Your task to perform on an android device: Play the last video I watched on Youtube Image 0: 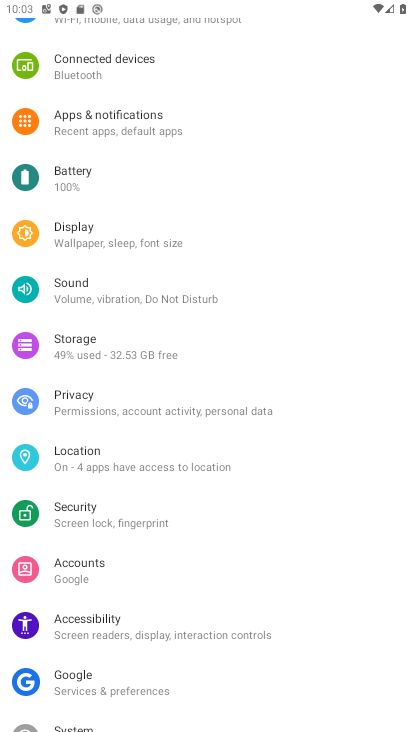
Step 0: press home button
Your task to perform on an android device: Play the last video I watched on Youtube Image 1: 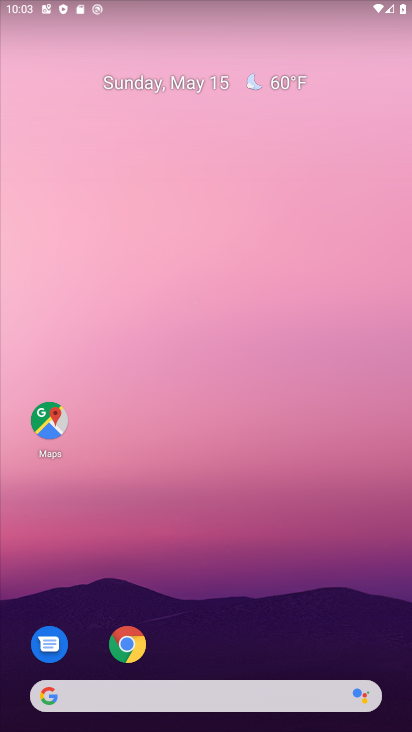
Step 1: drag from (198, 685) to (277, 226)
Your task to perform on an android device: Play the last video I watched on Youtube Image 2: 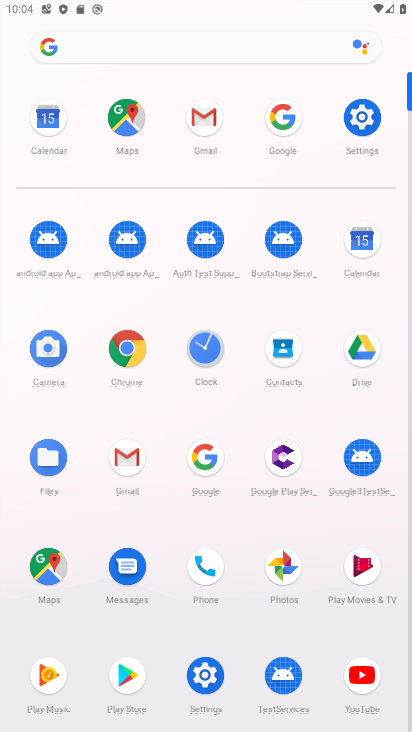
Step 2: click (354, 681)
Your task to perform on an android device: Play the last video I watched on Youtube Image 3: 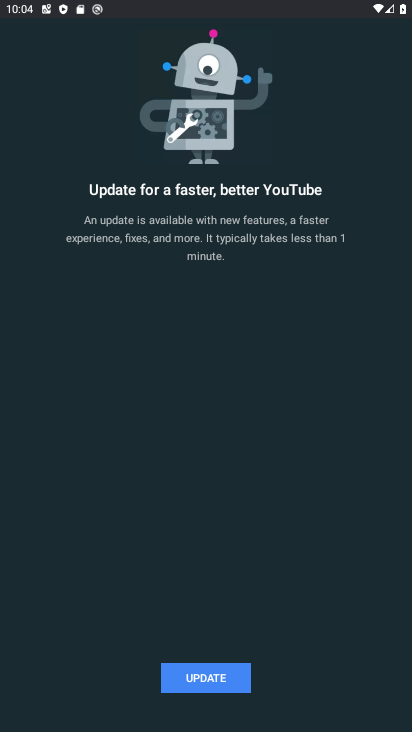
Step 3: click (213, 684)
Your task to perform on an android device: Play the last video I watched on Youtube Image 4: 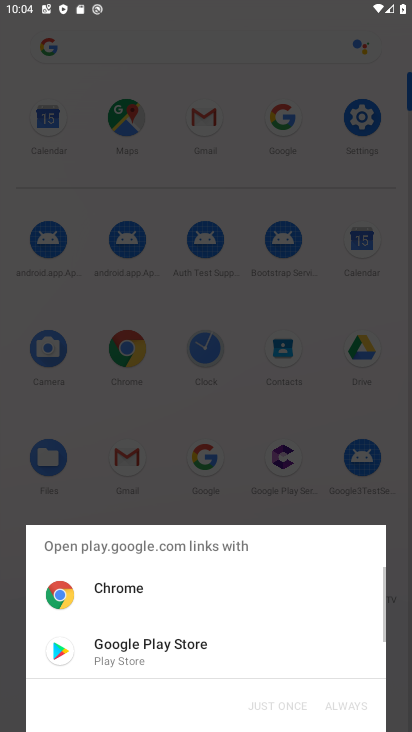
Step 4: click (218, 647)
Your task to perform on an android device: Play the last video I watched on Youtube Image 5: 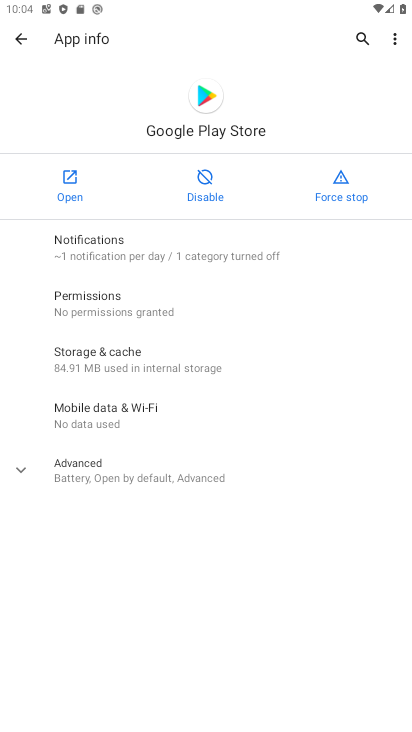
Step 5: click (70, 173)
Your task to perform on an android device: Play the last video I watched on Youtube Image 6: 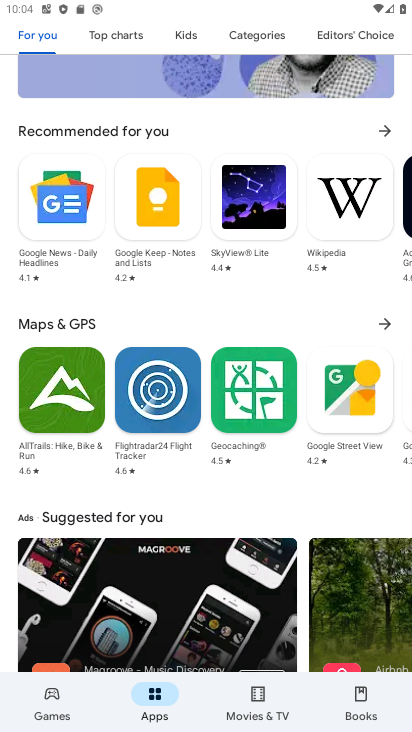
Step 6: drag from (245, 109) to (247, 726)
Your task to perform on an android device: Play the last video I watched on Youtube Image 7: 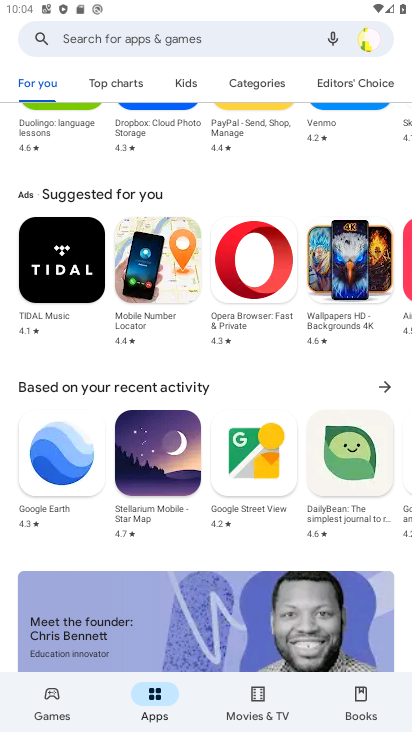
Step 7: drag from (256, 154) to (228, 649)
Your task to perform on an android device: Play the last video I watched on Youtube Image 8: 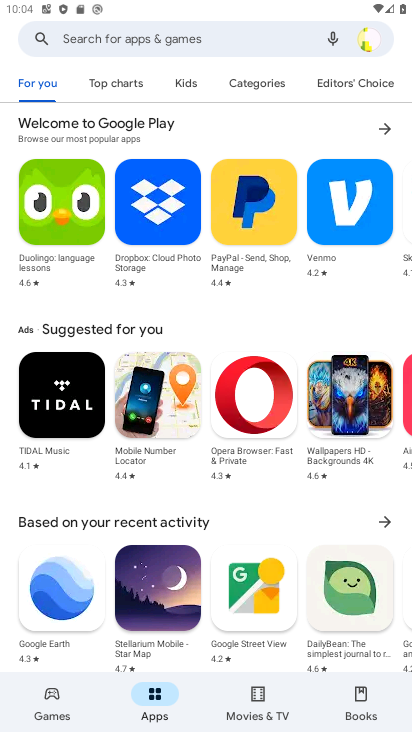
Step 8: drag from (198, 129) to (187, 470)
Your task to perform on an android device: Play the last video I watched on Youtube Image 9: 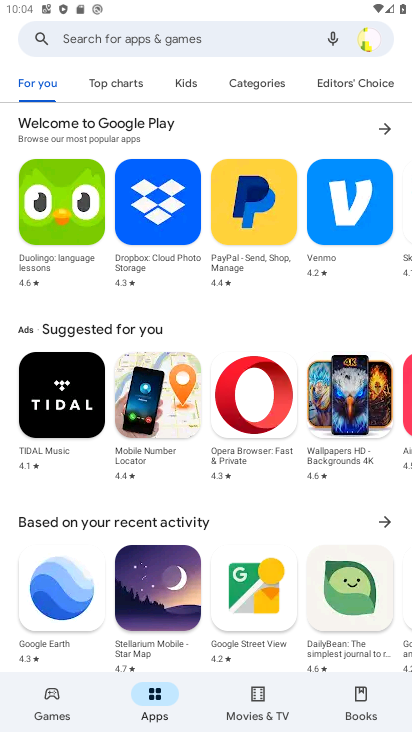
Step 9: click (147, 35)
Your task to perform on an android device: Play the last video I watched on Youtube Image 10: 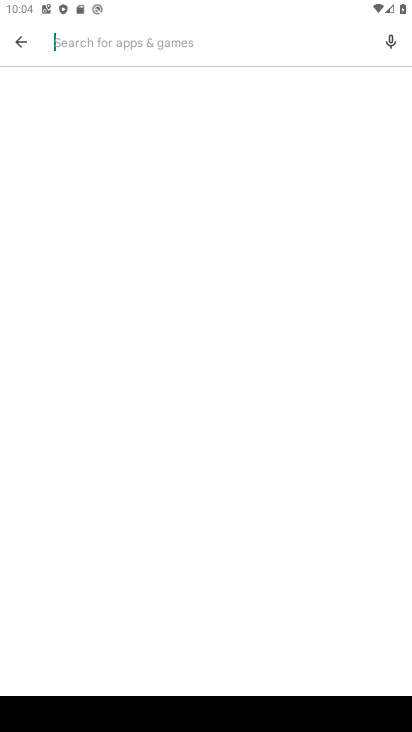
Step 10: type "youtube"
Your task to perform on an android device: Play the last video I watched on Youtube Image 11: 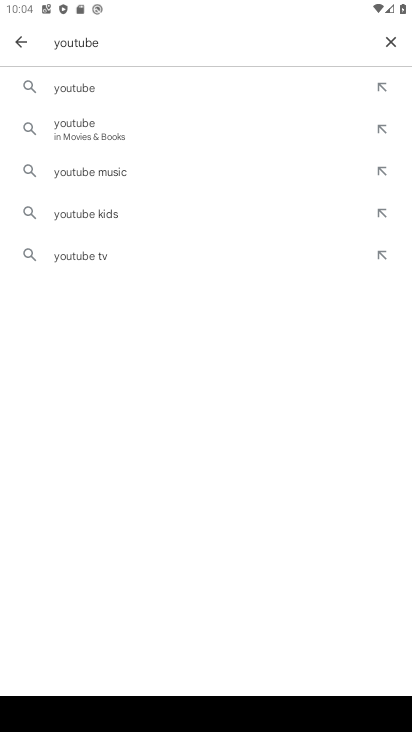
Step 11: click (94, 73)
Your task to perform on an android device: Play the last video I watched on Youtube Image 12: 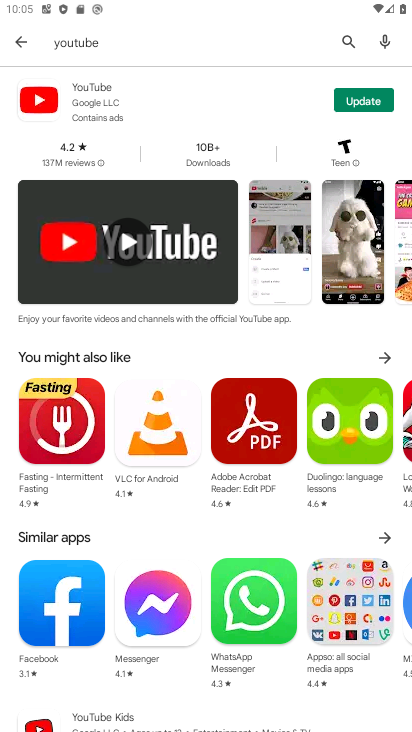
Step 12: click (72, 88)
Your task to perform on an android device: Play the last video I watched on Youtube Image 13: 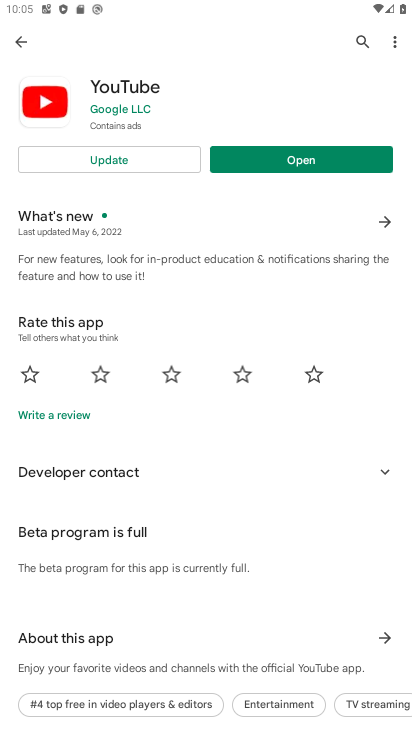
Step 13: click (386, 92)
Your task to perform on an android device: Play the last video I watched on Youtube Image 14: 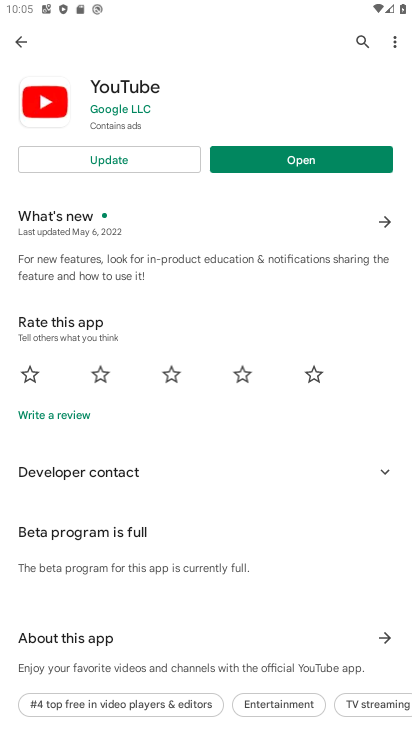
Step 14: click (352, 151)
Your task to perform on an android device: Play the last video I watched on Youtube Image 15: 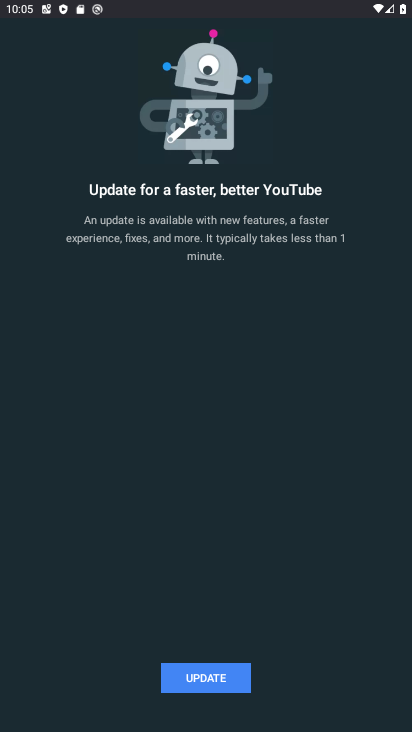
Step 15: click (187, 679)
Your task to perform on an android device: Play the last video I watched on Youtube Image 16: 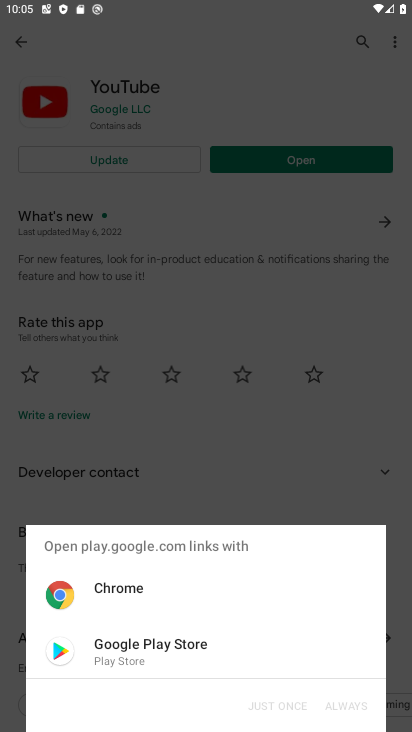
Step 16: click (320, 165)
Your task to perform on an android device: Play the last video I watched on Youtube Image 17: 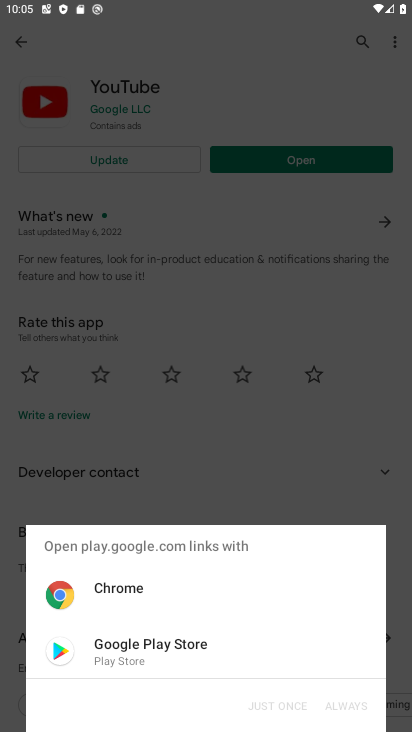
Step 17: click (103, 166)
Your task to perform on an android device: Play the last video I watched on Youtube Image 18: 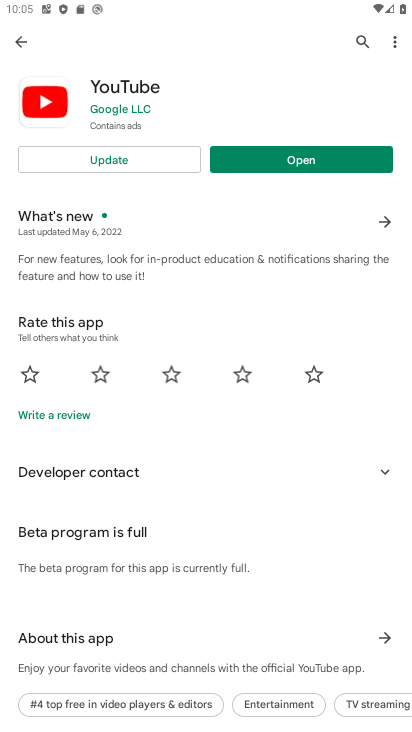
Step 18: click (125, 156)
Your task to perform on an android device: Play the last video I watched on Youtube Image 19: 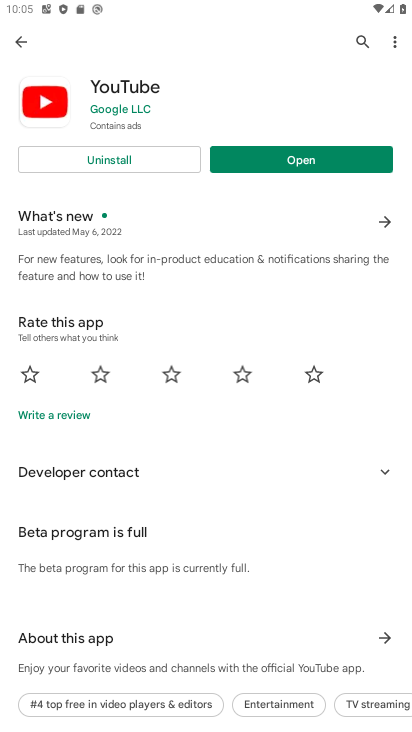
Step 19: click (278, 161)
Your task to perform on an android device: Play the last video I watched on Youtube Image 20: 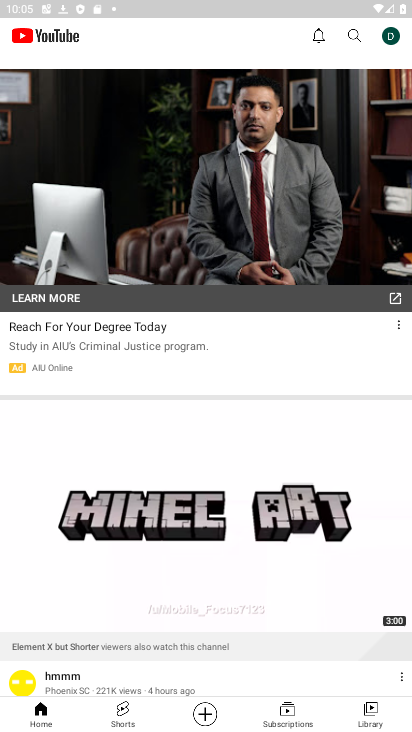
Step 20: click (363, 714)
Your task to perform on an android device: Play the last video I watched on Youtube Image 21: 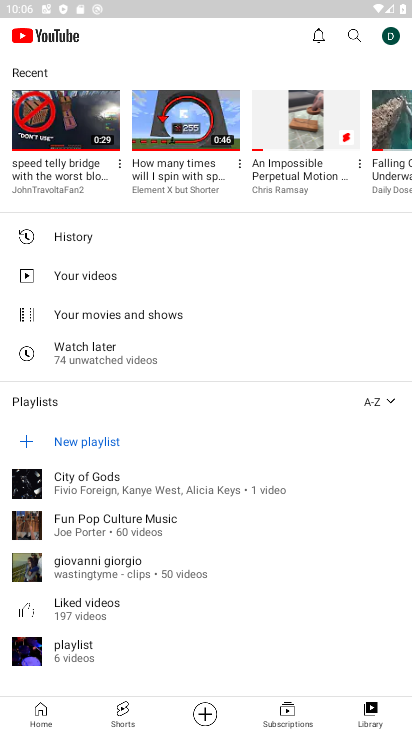
Step 21: click (57, 139)
Your task to perform on an android device: Play the last video I watched on Youtube Image 22: 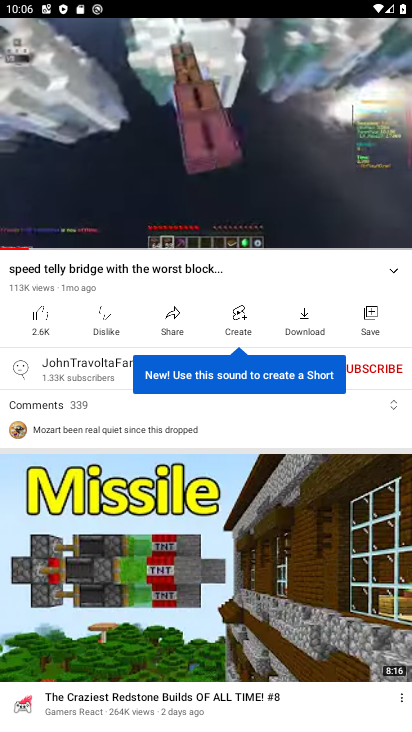
Step 22: task complete